Your task to perform on an android device: check battery use Image 0: 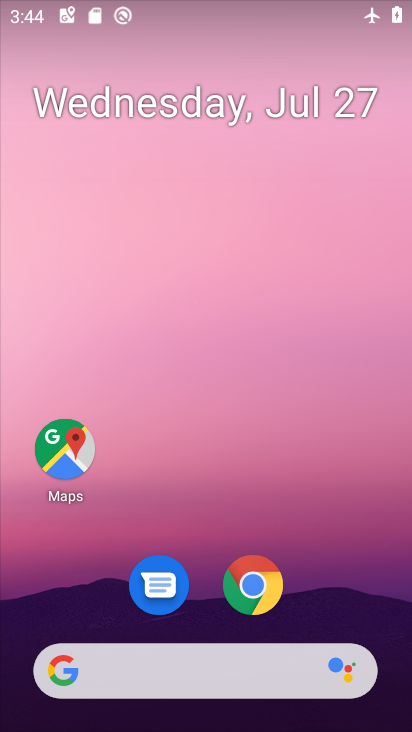
Step 0: drag from (300, 610) to (292, 26)
Your task to perform on an android device: check battery use Image 1: 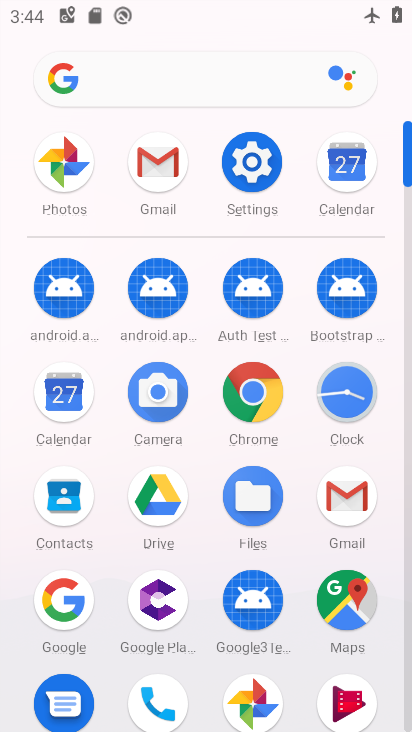
Step 1: click (262, 148)
Your task to perform on an android device: check battery use Image 2: 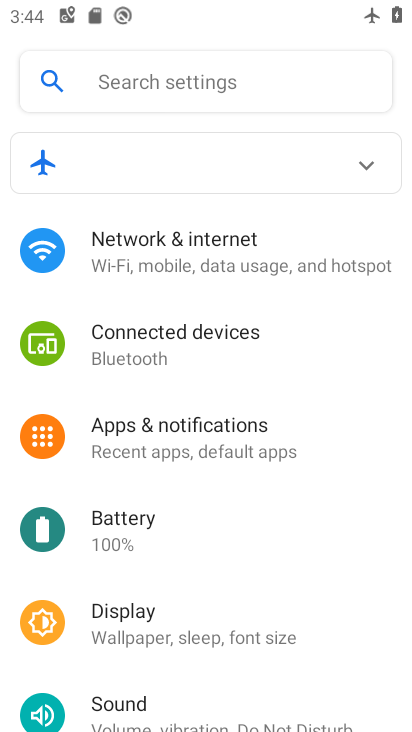
Step 2: click (132, 527)
Your task to perform on an android device: check battery use Image 3: 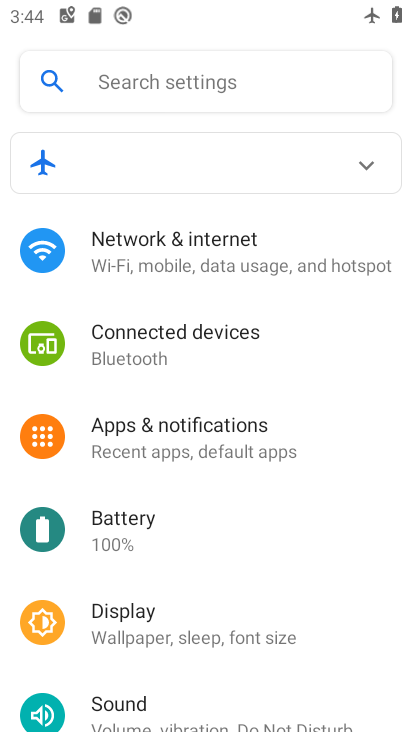
Step 3: click (140, 517)
Your task to perform on an android device: check battery use Image 4: 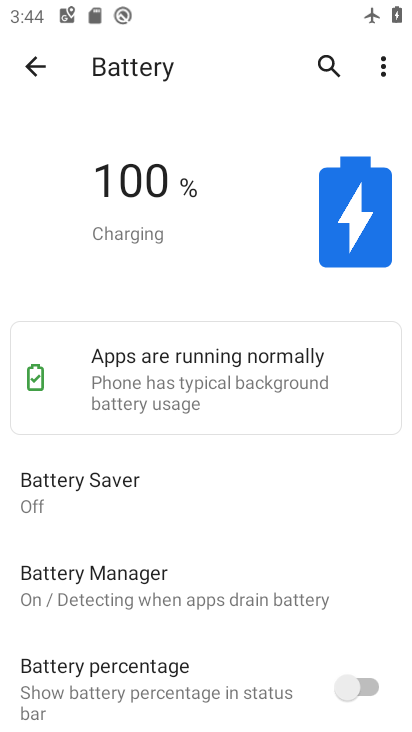
Step 4: task complete